Your task to perform on an android device: When is my next meeting? Image 0: 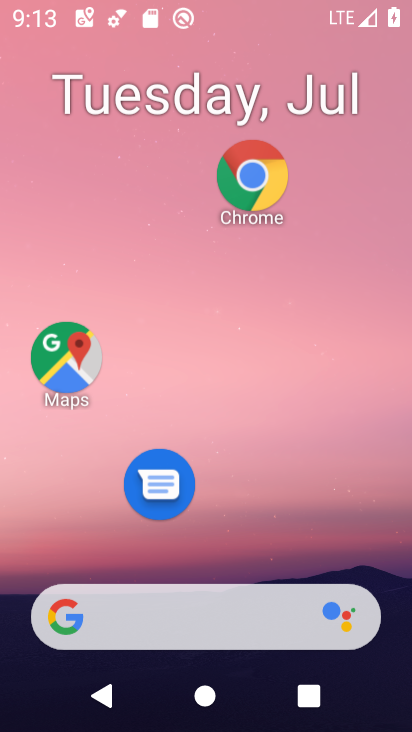
Step 0: drag from (285, 30) to (325, 7)
Your task to perform on an android device: When is my next meeting? Image 1: 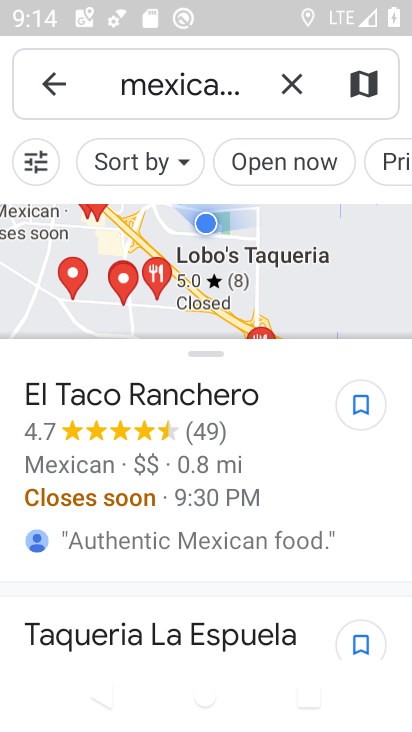
Step 1: press home button
Your task to perform on an android device: When is my next meeting? Image 2: 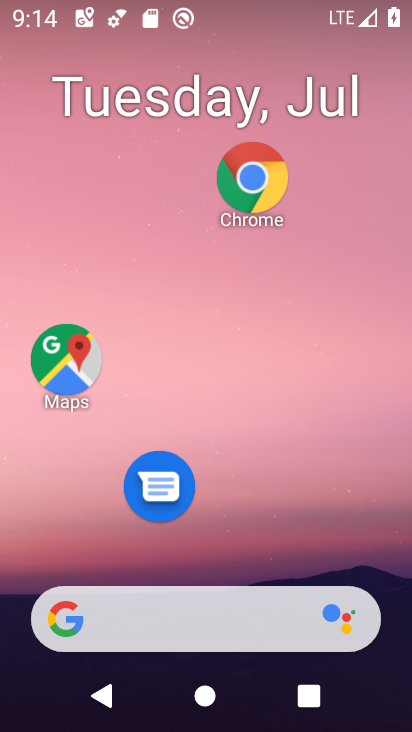
Step 2: drag from (195, 329) to (206, 1)
Your task to perform on an android device: When is my next meeting? Image 3: 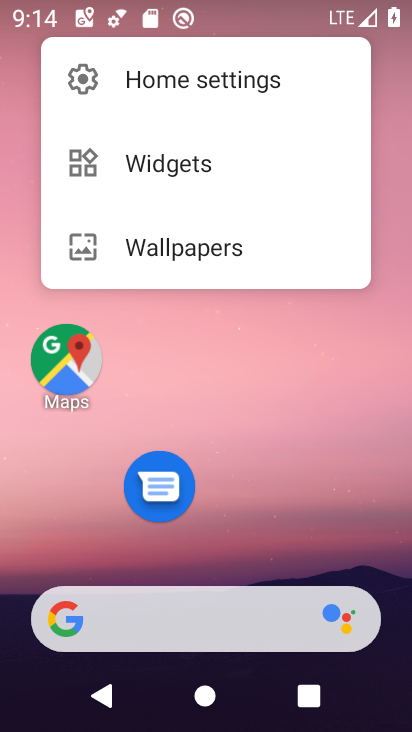
Step 3: click (231, 484)
Your task to perform on an android device: When is my next meeting? Image 4: 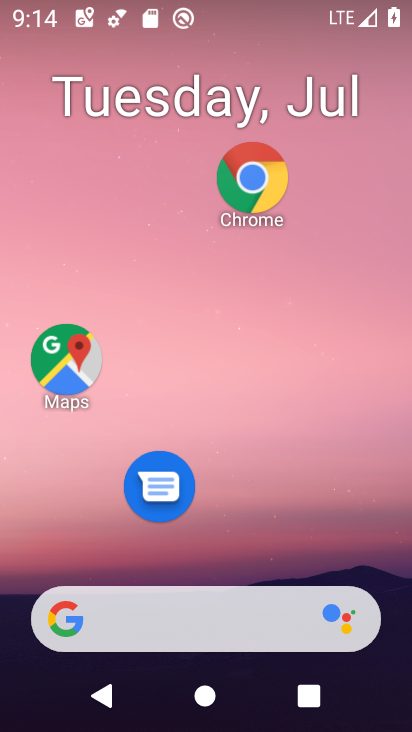
Step 4: click (302, 477)
Your task to perform on an android device: When is my next meeting? Image 5: 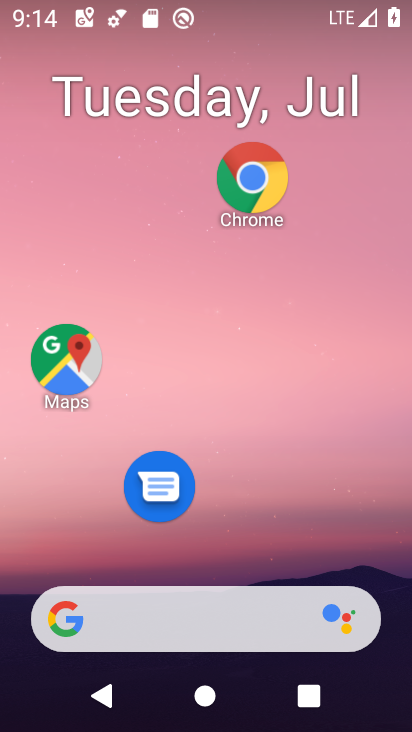
Step 5: drag from (247, 625) to (321, 93)
Your task to perform on an android device: When is my next meeting? Image 6: 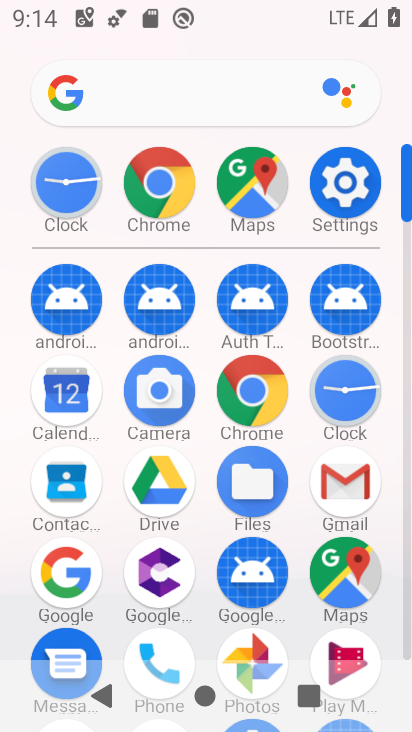
Step 6: click (76, 395)
Your task to perform on an android device: When is my next meeting? Image 7: 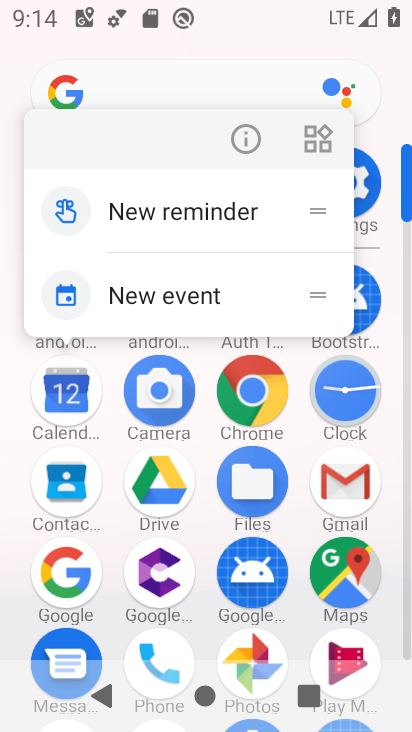
Step 7: click (83, 409)
Your task to perform on an android device: When is my next meeting? Image 8: 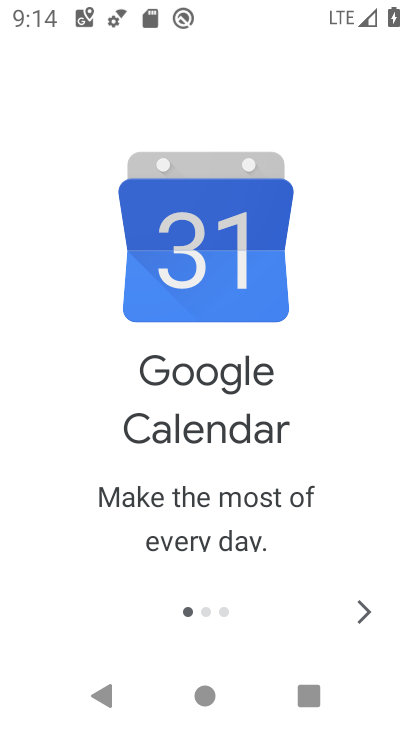
Step 8: click (352, 602)
Your task to perform on an android device: When is my next meeting? Image 9: 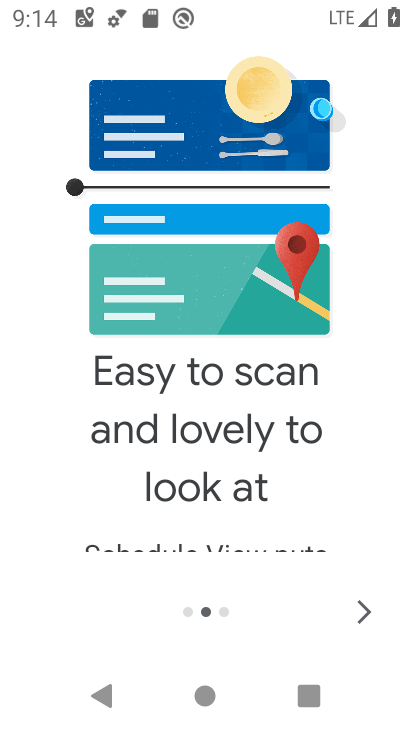
Step 9: click (371, 601)
Your task to perform on an android device: When is my next meeting? Image 10: 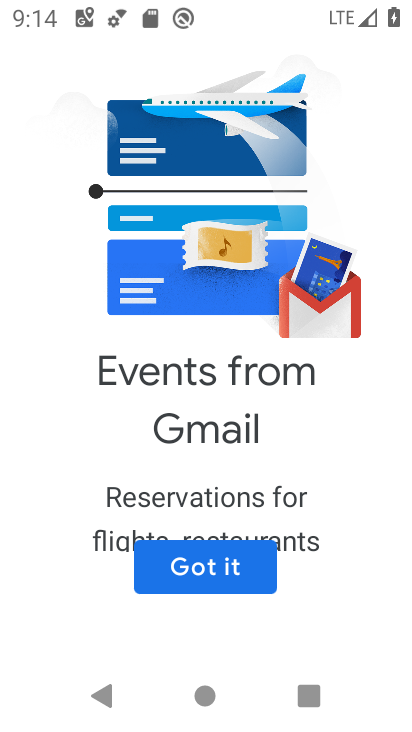
Step 10: click (364, 623)
Your task to perform on an android device: When is my next meeting? Image 11: 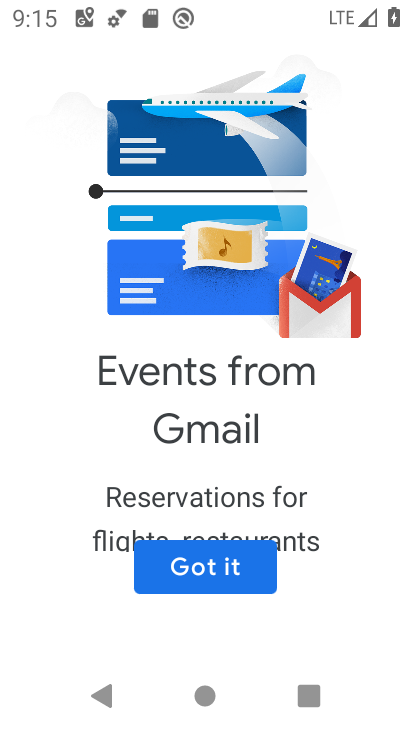
Step 11: click (368, 603)
Your task to perform on an android device: When is my next meeting? Image 12: 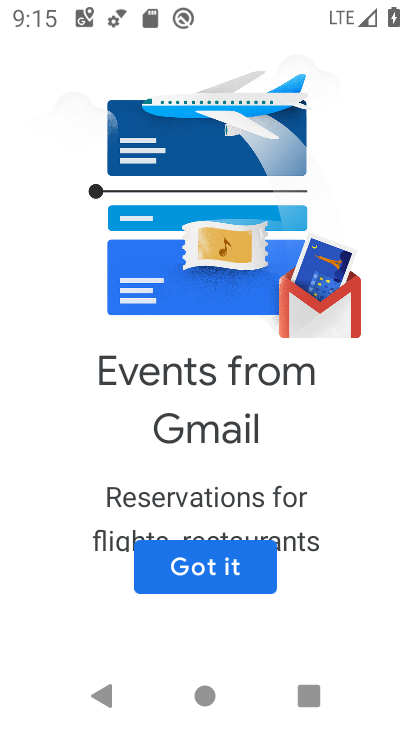
Step 12: click (239, 569)
Your task to perform on an android device: When is my next meeting? Image 13: 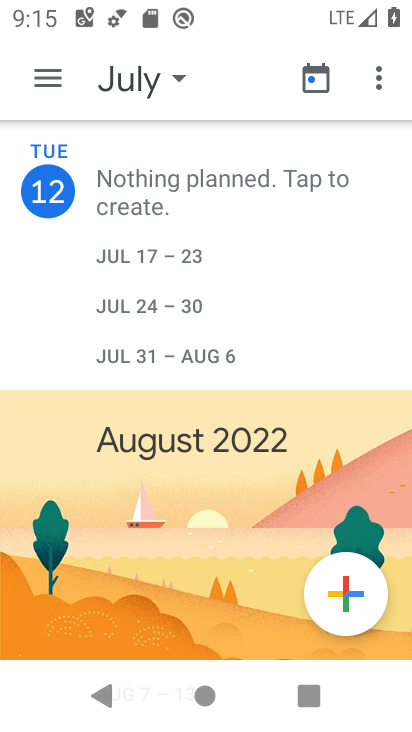
Step 13: click (222, 571)
Your task to perform on an android device: When is my next meeting? Image 14: 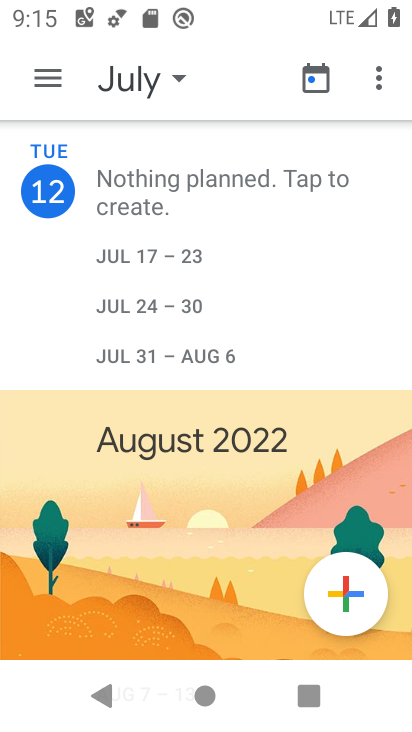
Step 14: click (56, 90)
Your task to perform on an android device: When is my next meeting? Image 15: 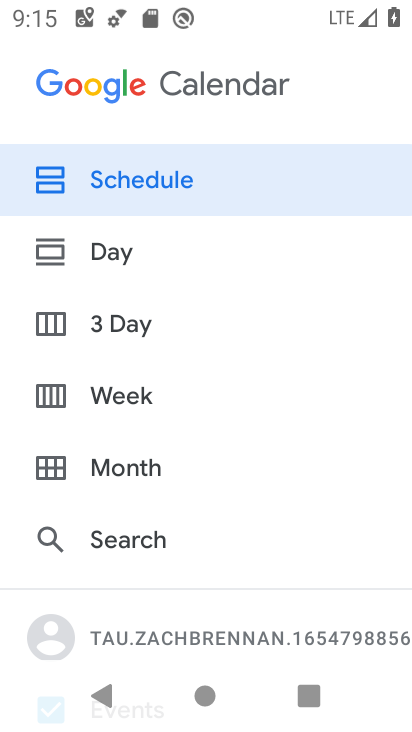
Step 15: drag from (219, 581) to (231, 70)
Your task to perform on an android device: When is my next meeting? Image 16: 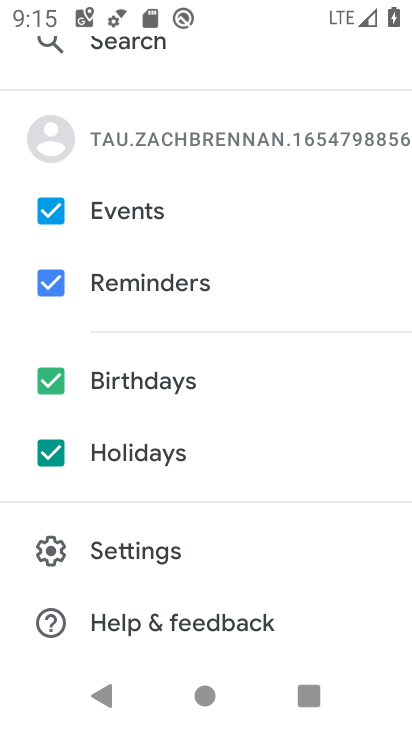
Step 16: click (63, 446)
Your task to perform on an android device: When is my next meeting? Image 17: 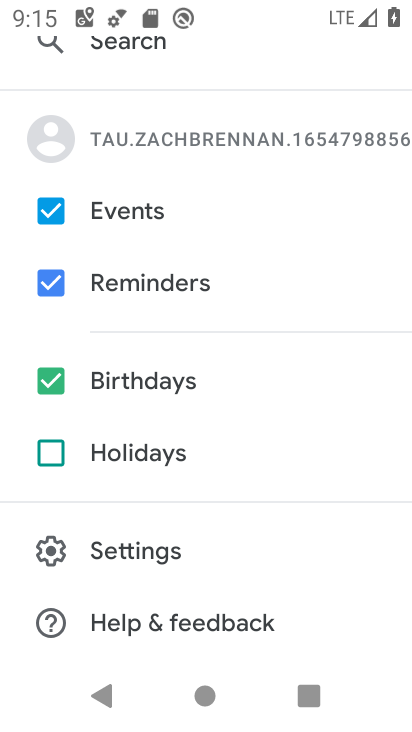
Step 17: click (48, 392)
Your task to perform on an android device: When is my next meeting? Image 18: 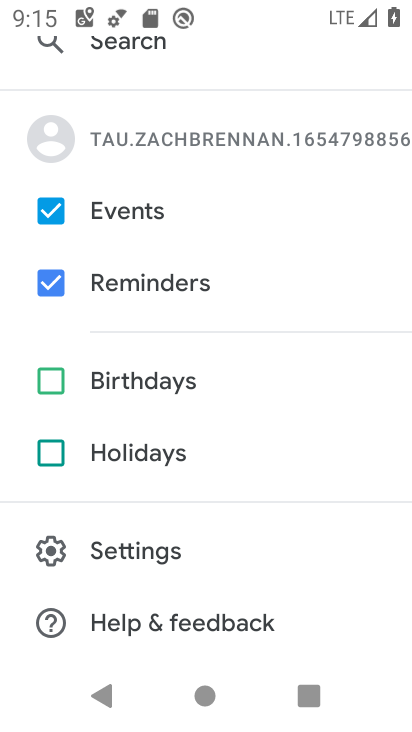
Step 18: task complete